Your task to perform on an android device: Search for "usb-a" on newegg, select the first entry, and add it to the cart. Image 0: 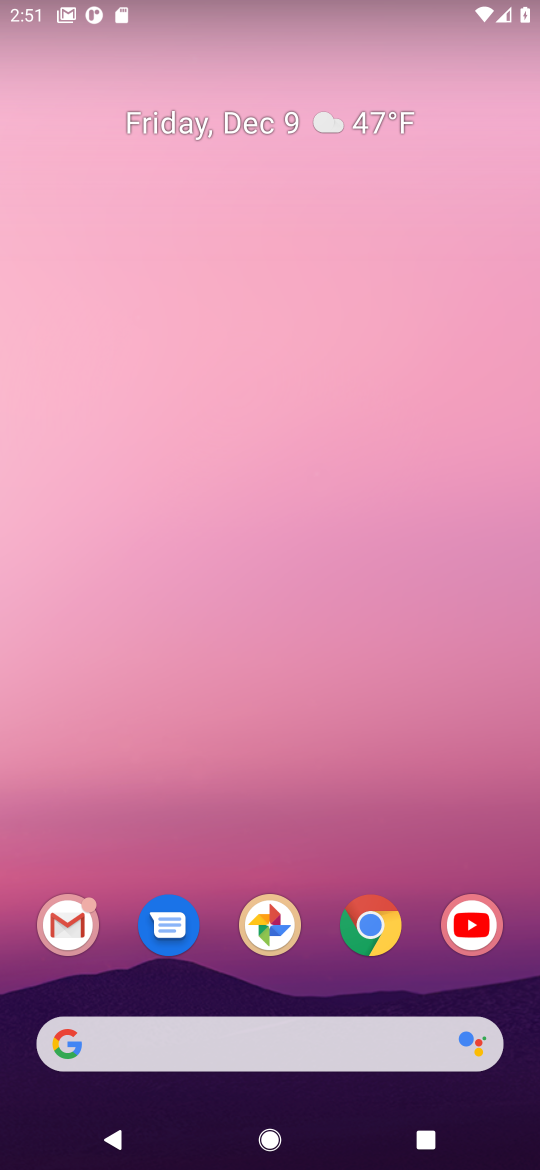
Step 0: click (370, 925)
Your task to perform on an android device: Search for "usb-a" on newegg, select the first entry, and add it to the cart. Image 1: 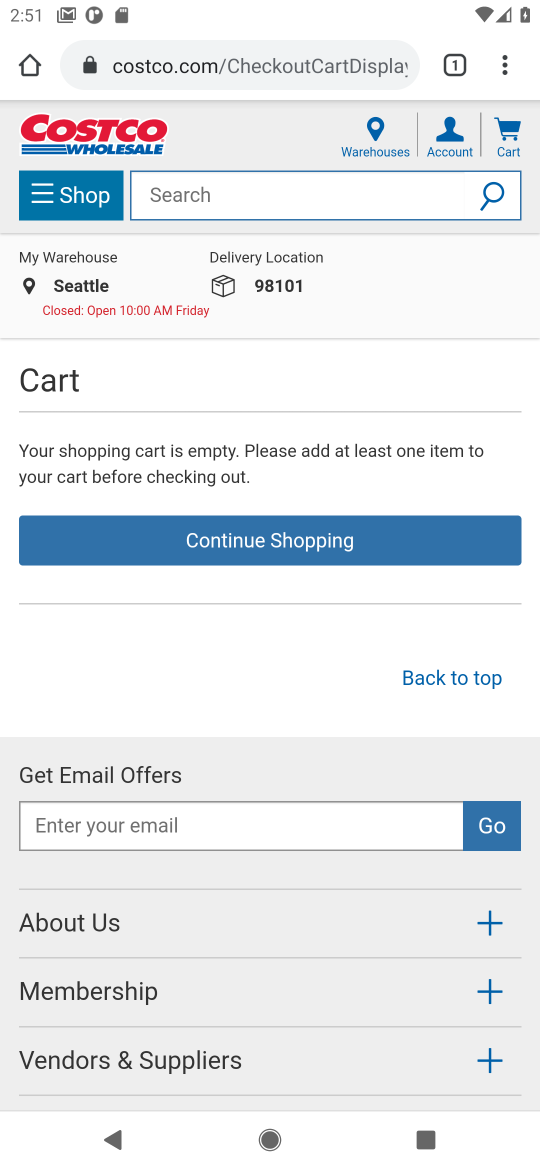
Step 1: click (339, 207)
Your task to perform on an android device: Search for "usb-a" on newegg, select the first entry, and add it to the cart. Image 2: 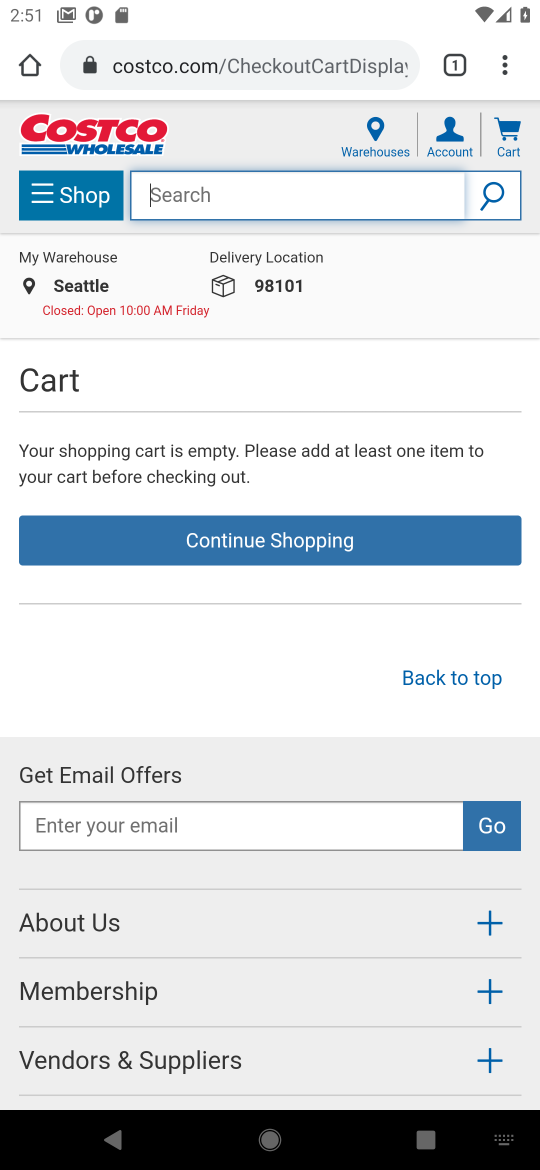
Step 2: click (332, 70)
Your task to perform on an android device: Search for "usb-a" on newegg, select the first entry, and add it to the cart. Image 3: 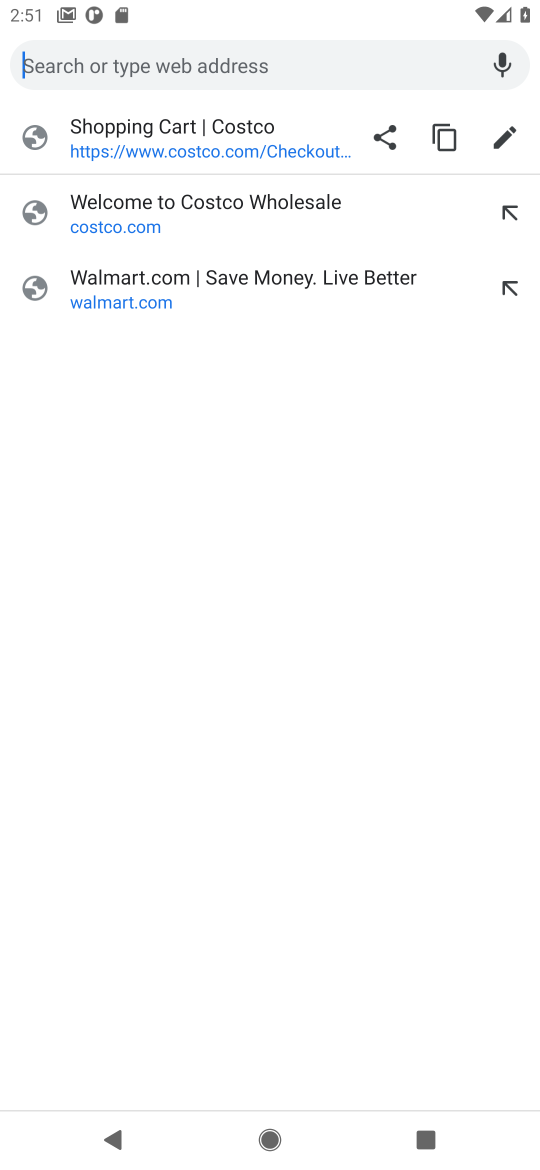
Step 3: type "NEWEGG"
Your task to perform on an android device: Search for "usb-a" on newegg, select the first entry, and add it to the cart. Image 4: 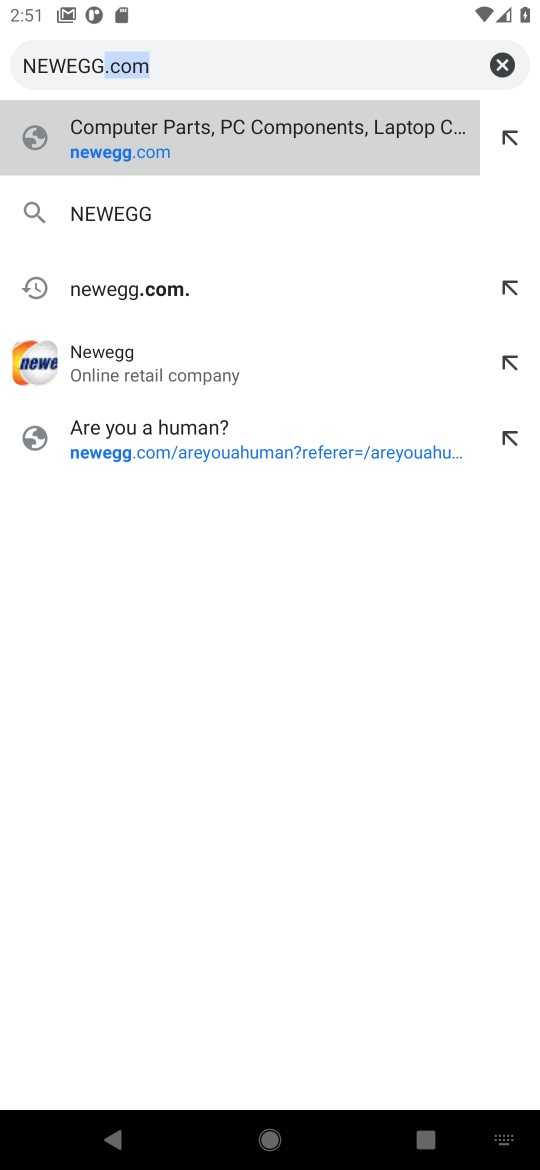
Step 4: click (141, 140)
Your task to perform on an android device: Search for "usb-a" on newegg, select the first entry, and add it to the cart. Image 5: 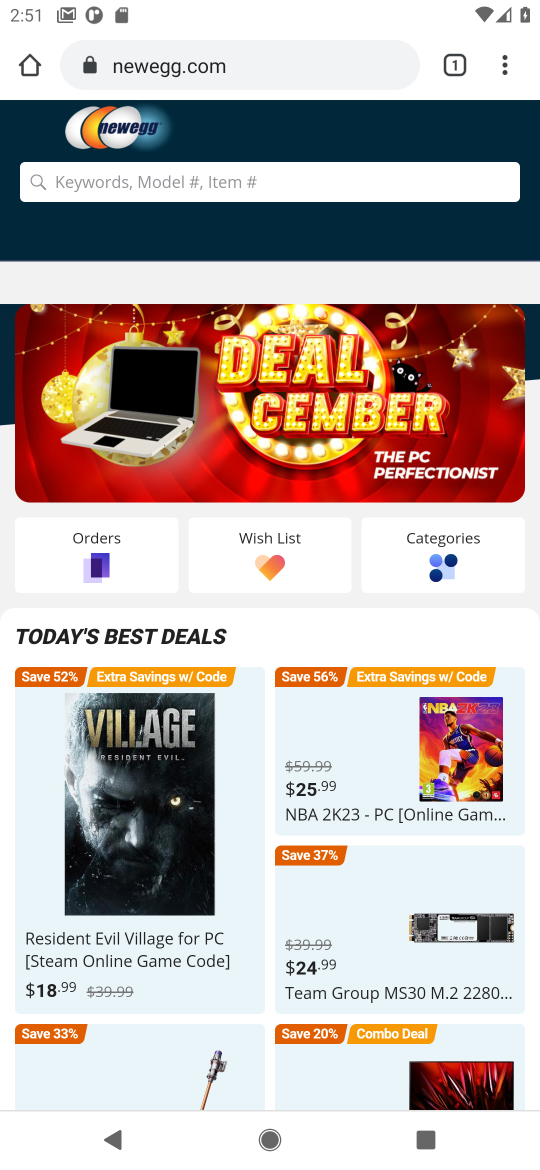
Step 5: click (194, 178)
Your task to perform on an android device: Search for "usb-a" on newegg, select the first entry, and add it to the cart. Image 6: 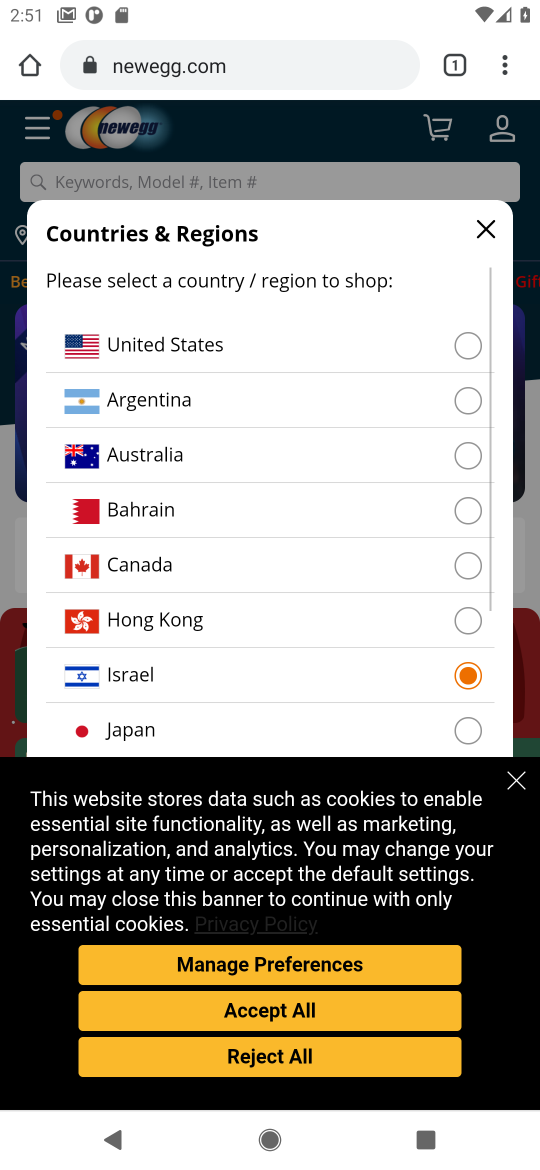
Step 6: click (516, 780)
Your task to perform on an android device: Search for "usb-a" on newegg, select the first entry, and add it to the cart. Image 7: 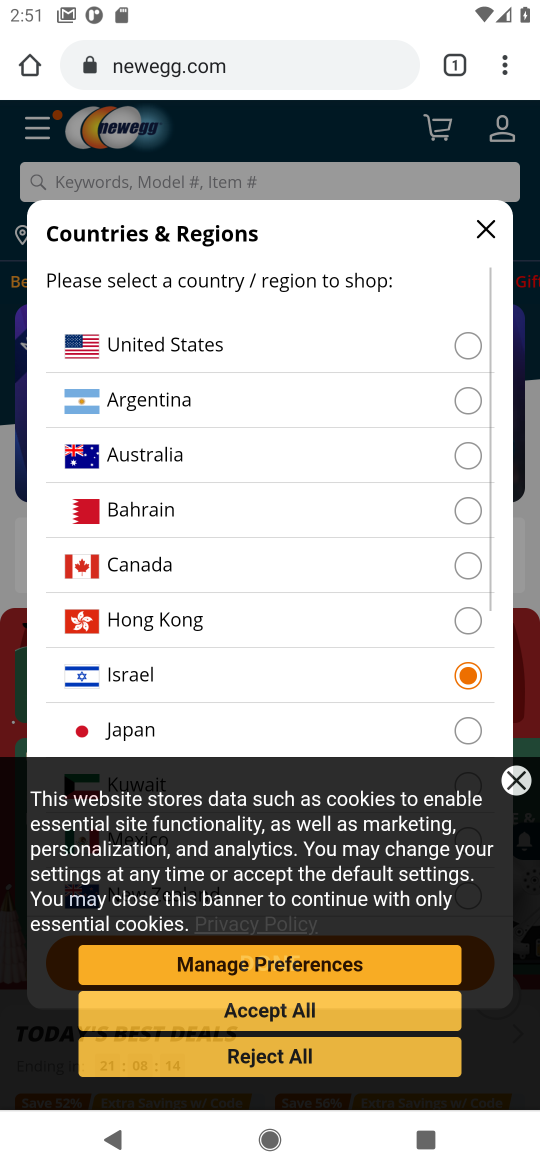
Step 7: click (351, 347)
Your task to perform on an android device: Search for "usb-a" on newegg, select the first entry, and add it to the cart. Image 8: 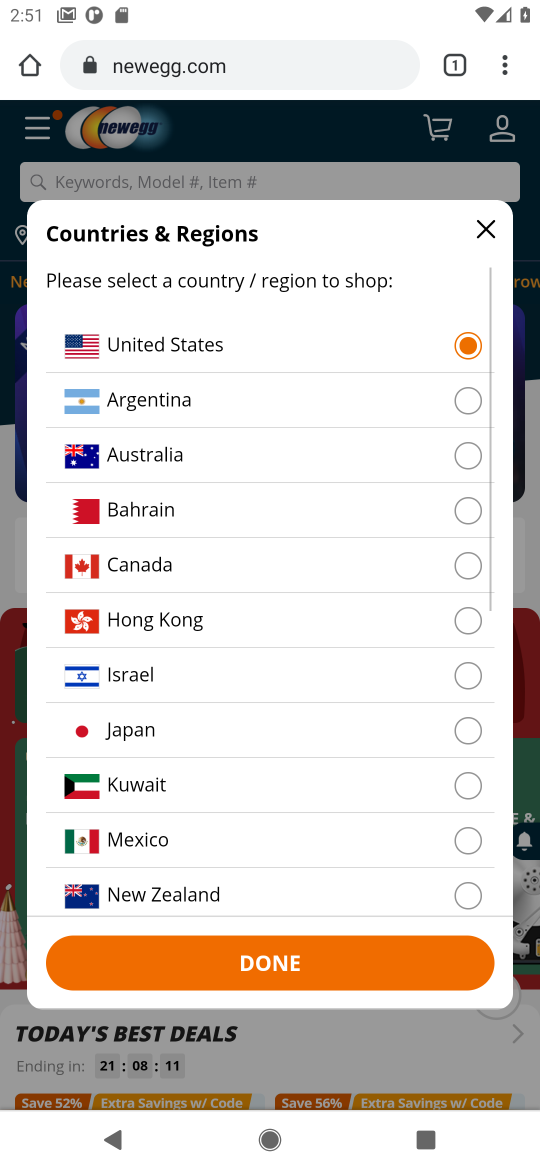
Step 8: click (291, 976)
Your task to perform on an android device: Search for "usb-a" on newegg, select the first entry, and add it to the cart. Image 9: 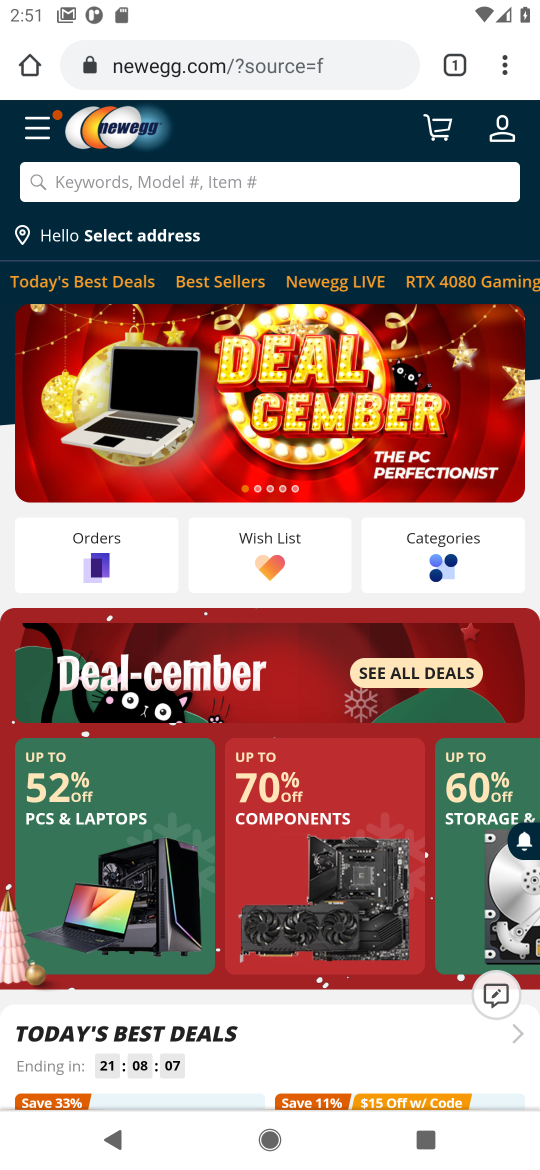
Step 9: type "USB-A"
Your task to perform on an android device: Search for "usb-a" on newegg, select the first entry, and add it to the cart. Image 10: 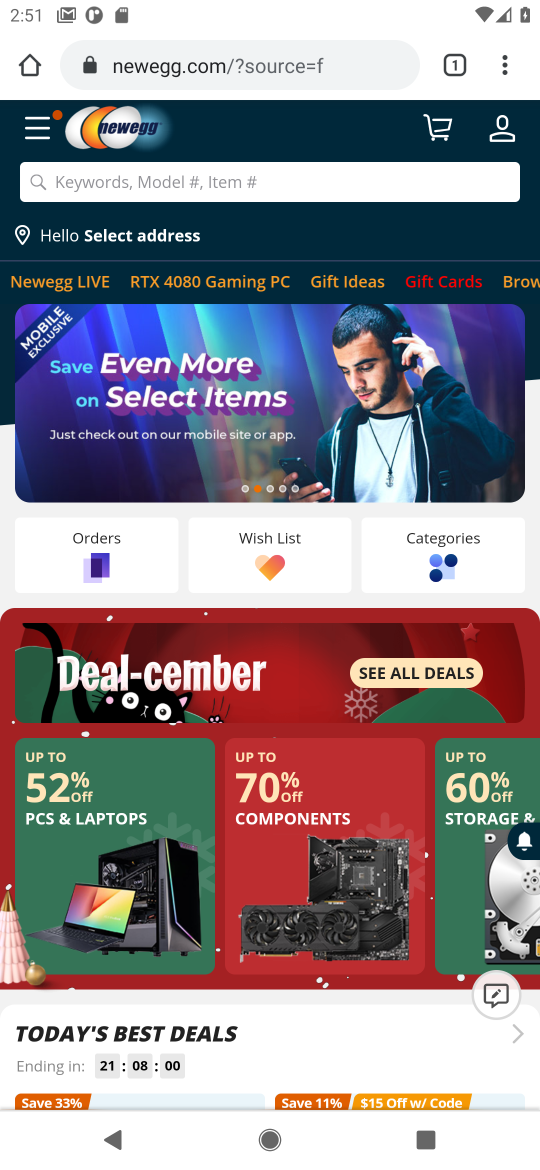
Step 10: click (287, 178)
Your task to perform on an android device: Search for "usb-a" on newegg, select the first entry, and add it to the cart. Image 11: 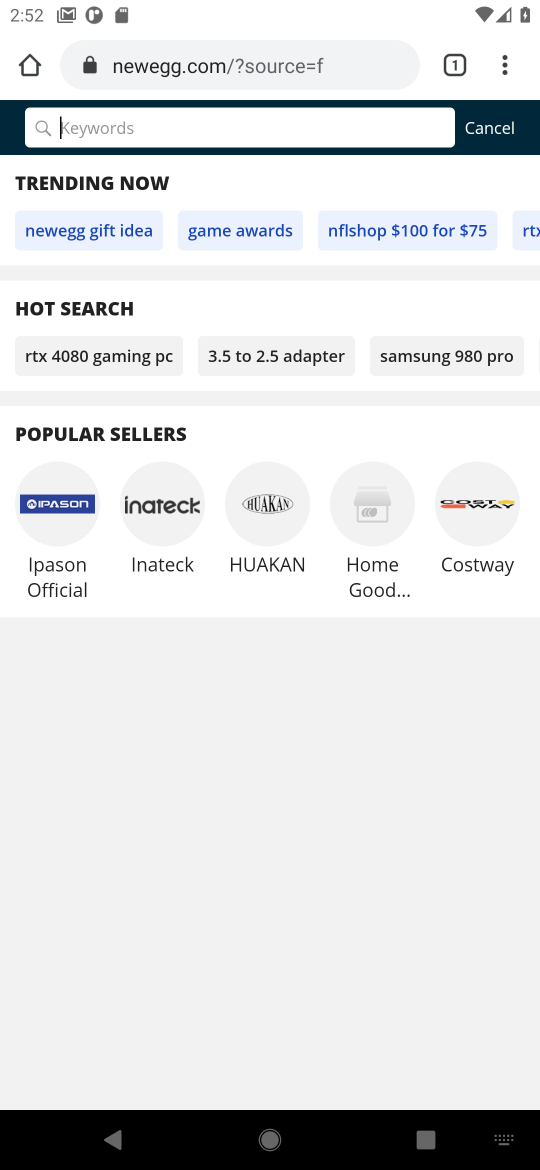
Step 11: type "USB-A"
Your task to perform on an android device: Search for "usb-a" on newegg, select the first entry, and add it to the cart. Image 12: 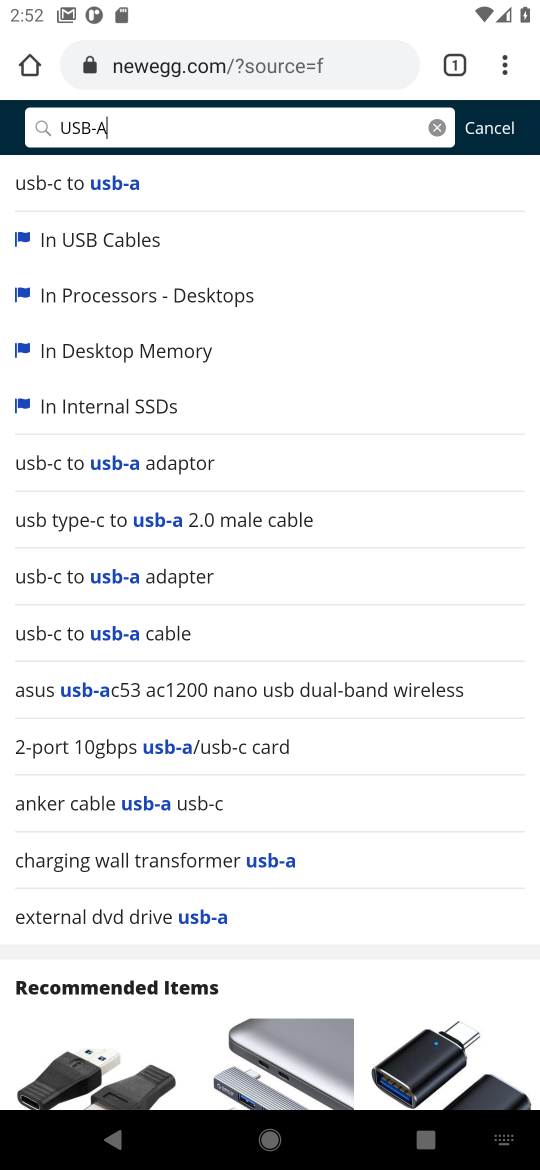
Step 12: click (77, 179)
Your task to perform on an android device: Search for "usb-a" on newegg, select the first entry, and add it to the cart. Image 13: 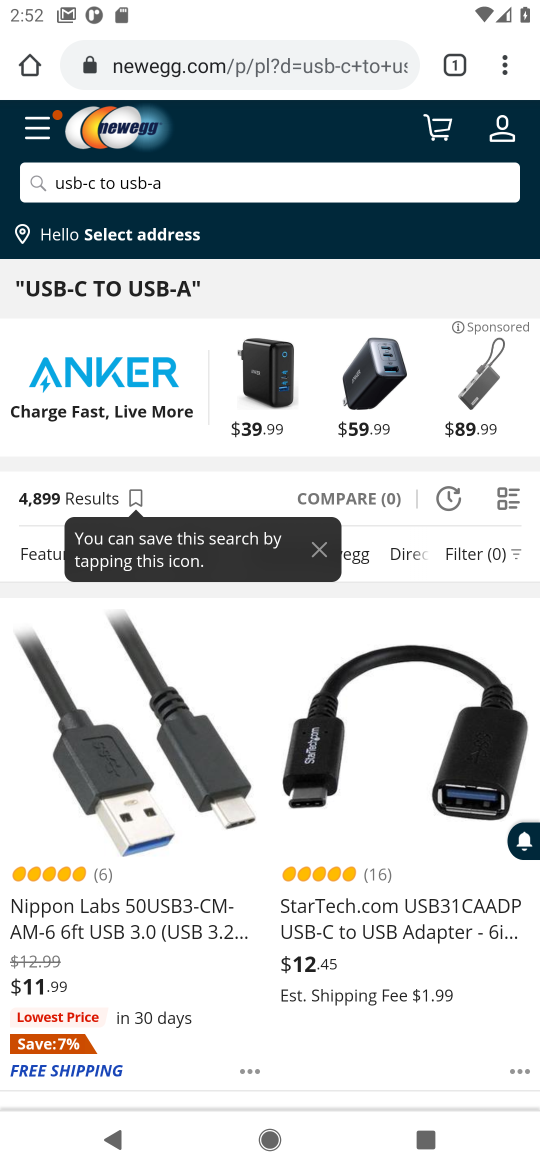
Step 13: click (127, 781)
Your task to perform on an android device: Search for "usb-a" on newegg, select the first entry, and add it to the cart. Image 14: 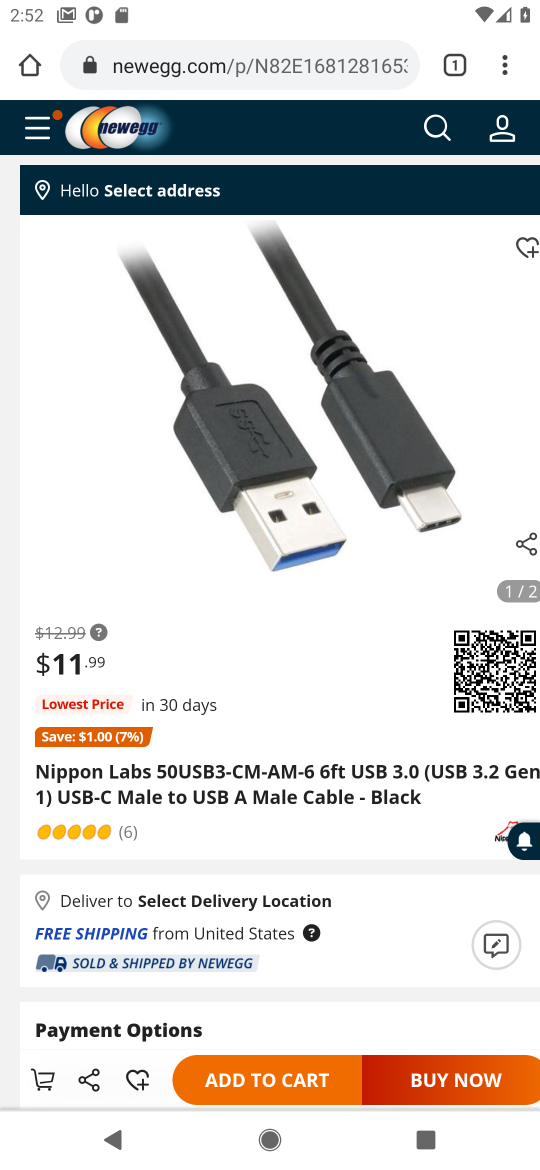
Step 14: click (288, 1077)
Your task to perform on an android device: Search for "usb-a" on newegg, select the first entry, and add it to the cart. Image 15: 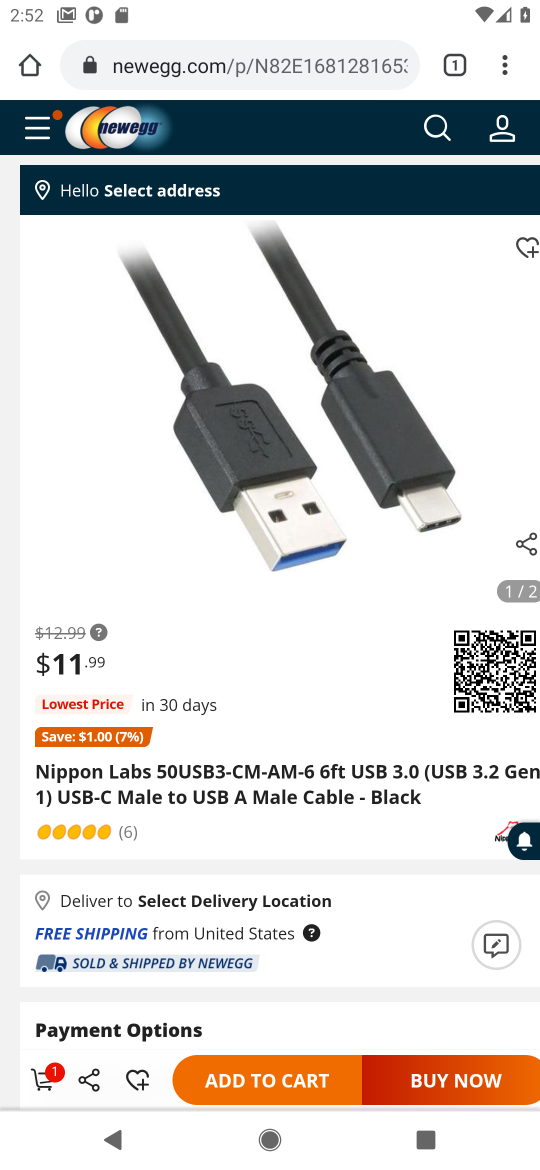
Step 15: task complete